Your task to perform on an android device: Go to privacy settings Image 0: 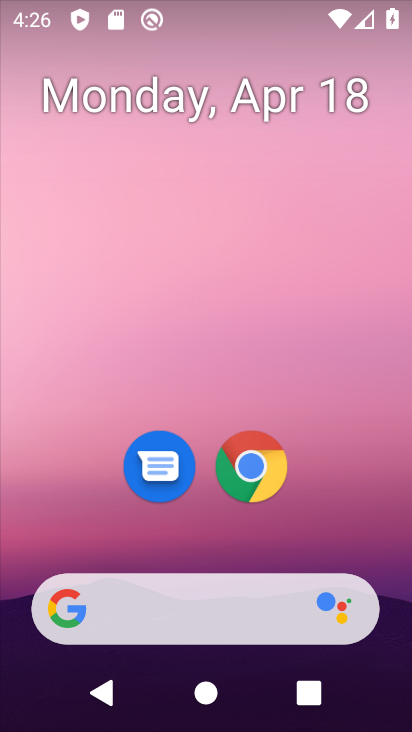
Step 0: drag from (328, 486) to (290, 65)
Your task to perform on an android device: Go to privacy settings Image 1: 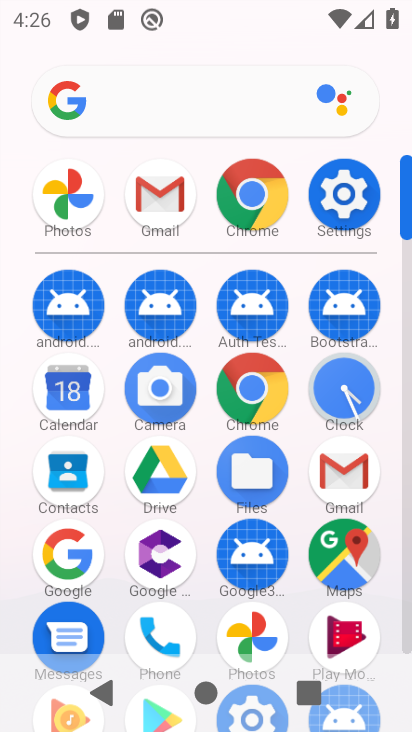
Step 1: drag from (8, 565) to (28, 305)
Your task to perform on an android device: Go to privacy settings Image 2: 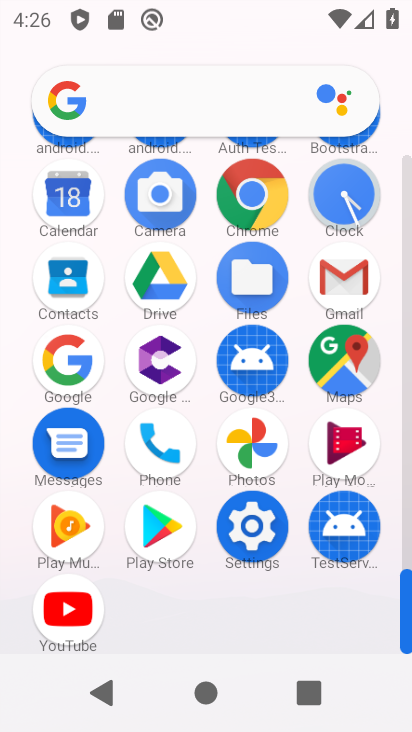
Step 2: click (255, 191)
Your task to perform on an android device: Go to privacy settings Image 3: 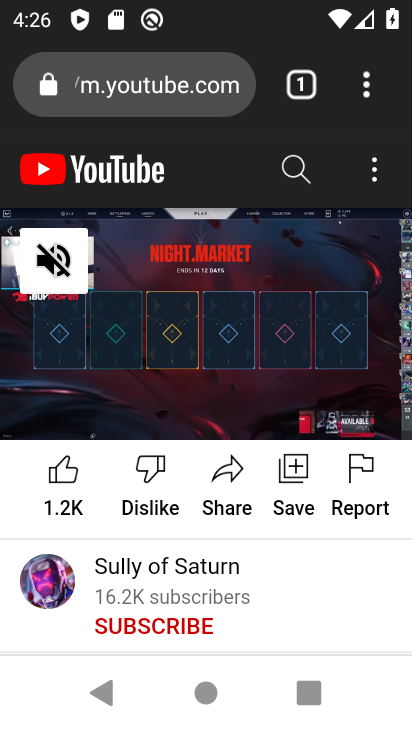
Step 3: drag from (365, 88) to (247, 511)
Your task to perform on an android device: Go to privacy settings Image 4: 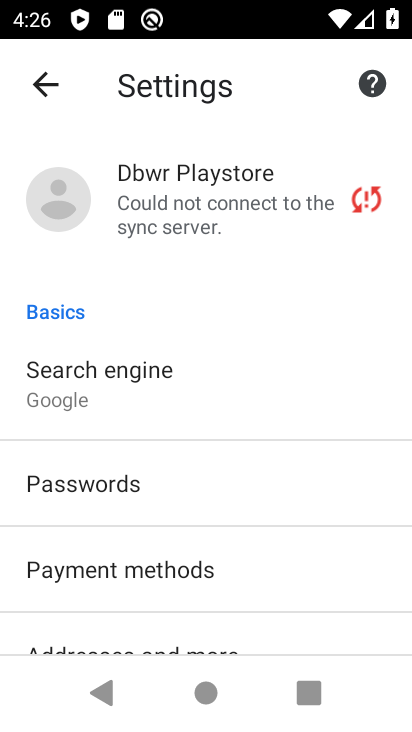
Step 4: drag from (213, 395) to (277, 194)
Your task to perform on an android device: Go to privacy settings Image 5: 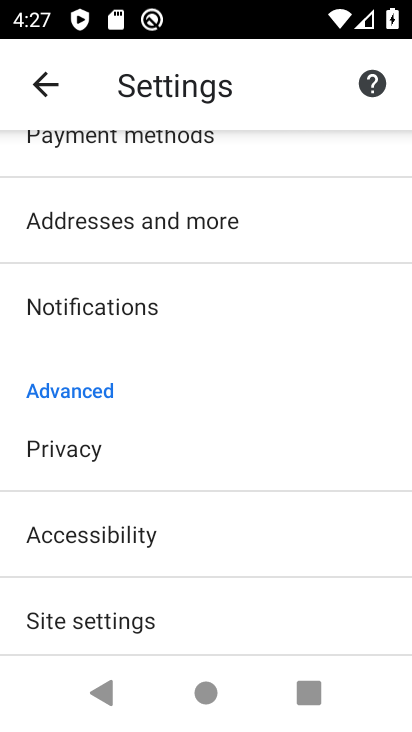
Step 5: click (118, 450)
Your task to perform on an android device: Go to privacy settings Image 6: 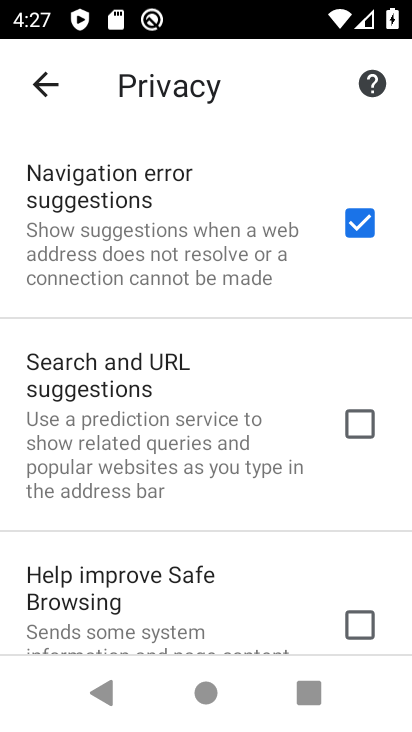
Step 6: task complete